Your task to perform on an android device: Open Google Maps and go to "Timeline" Image 0: 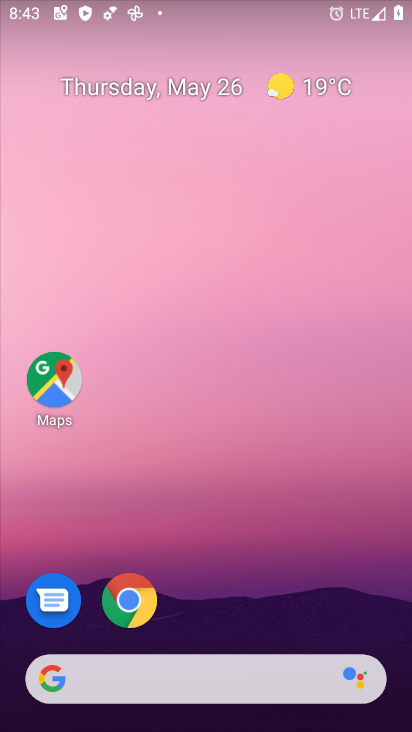
Step 0: press home button
Your task to perform on an android device: Open Google Maps and go to "Timeline" Image 1: 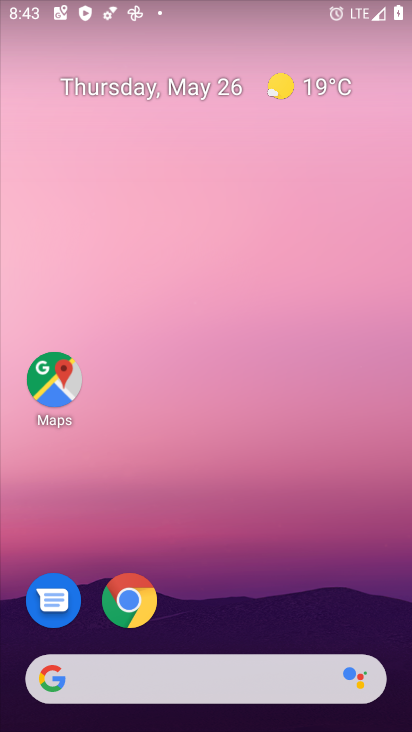
Step 1: drag from (237, 621) to (269, 115)
Your task to perform on an android device: Open Google Maps and go to "Timeline" Image 2: 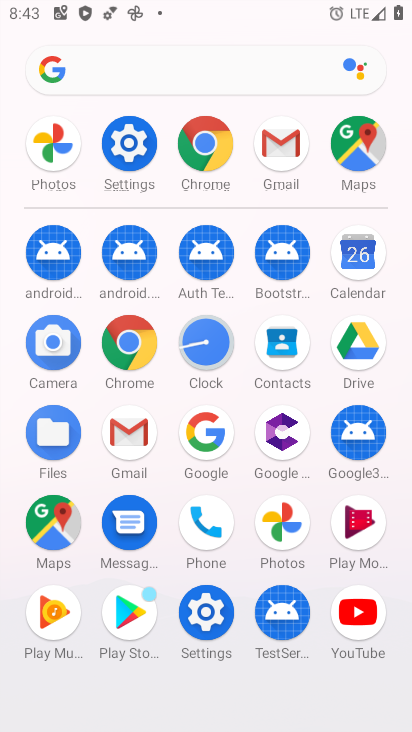
Step 2: click (366, 152)
Your task to perform on an android device: Open Google Maps and go to "Timeline" Image 3: 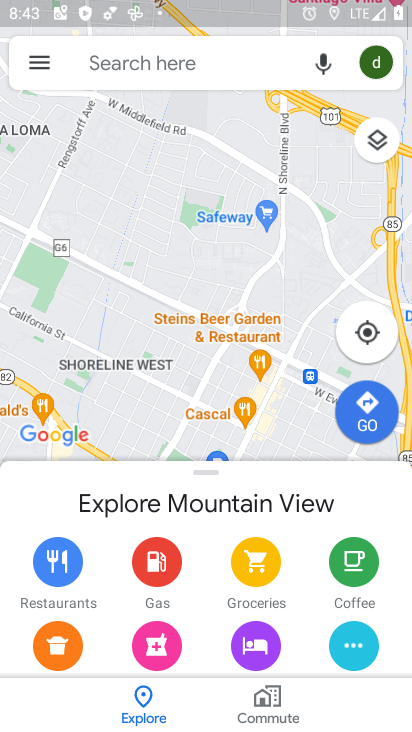
Step 3: click (35, 76)
Your task to perform on an android device: Open Google Maps and go to "Timeline" Image 4: 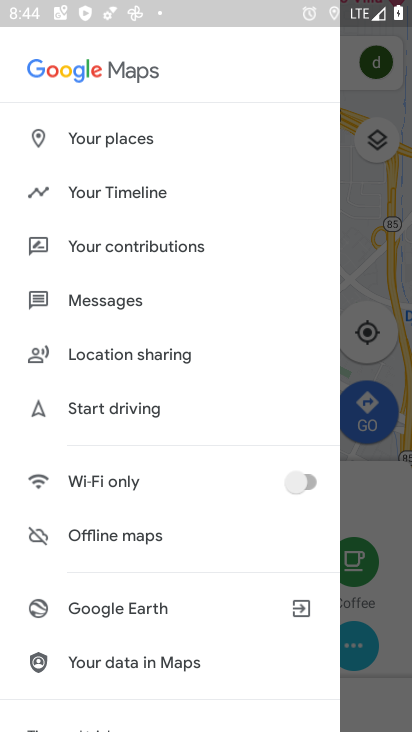
Step 4: click (109, 195)
Your task to perform on an android device: Open Google Maps and go to "Timeline" Image 5: 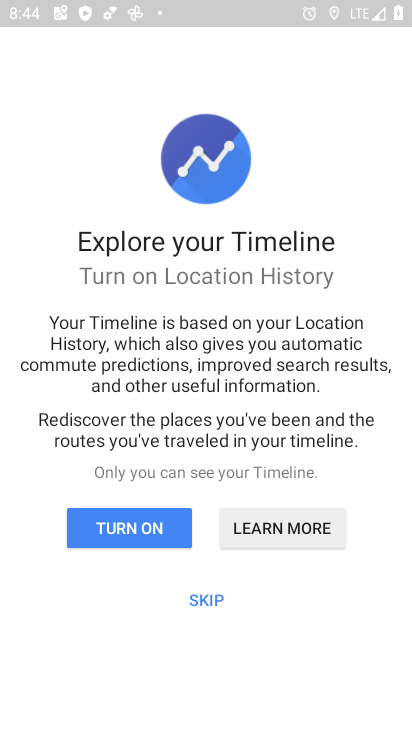
Step 5: click (109, 533)
Your task to perform on an android device: Open Google Maps and go to "Timeline" Image 6: 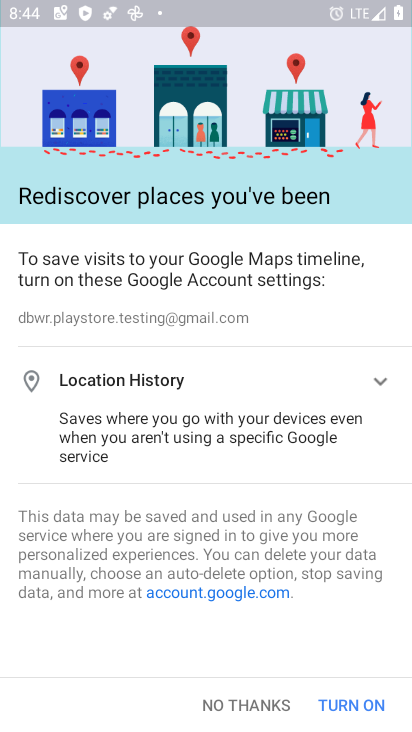
Step 6: task complete